Your task to perform on an android device: turn on airplane mode Image 0: 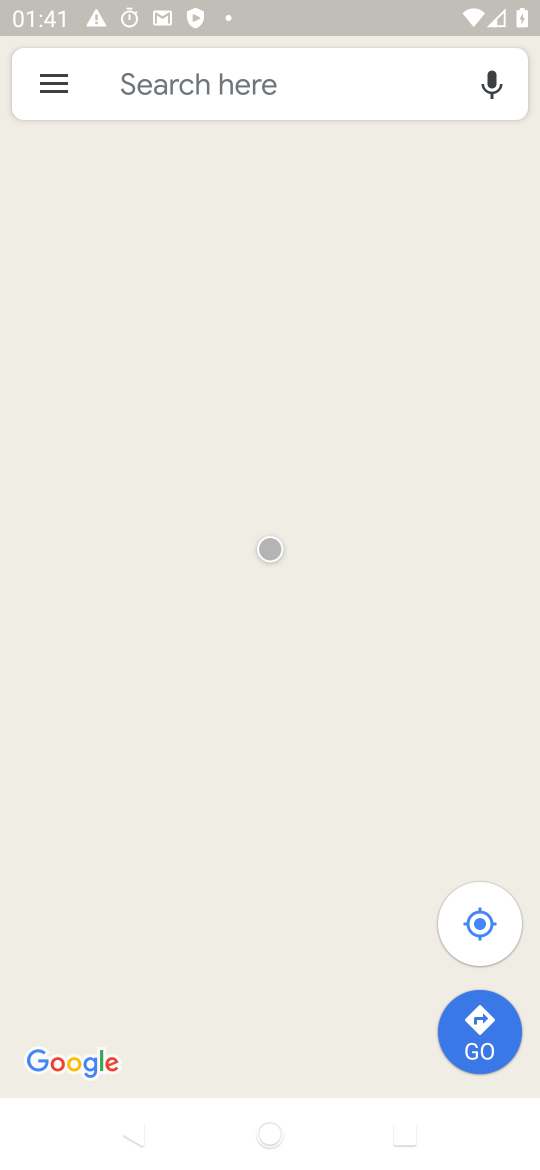
Step 0: press home button
Your task to perform on an android device: turn on airplane mode Image 1: 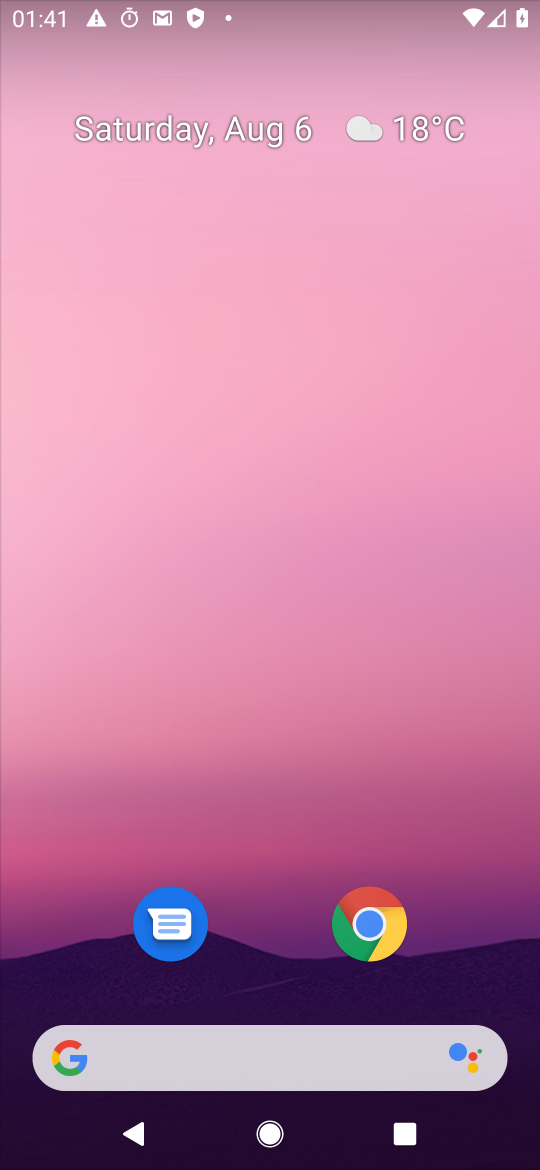
Step 1: drag from (38, 1000) to (294, 81)
Your task to perform on an android device: turn on airplane mode Image 2: 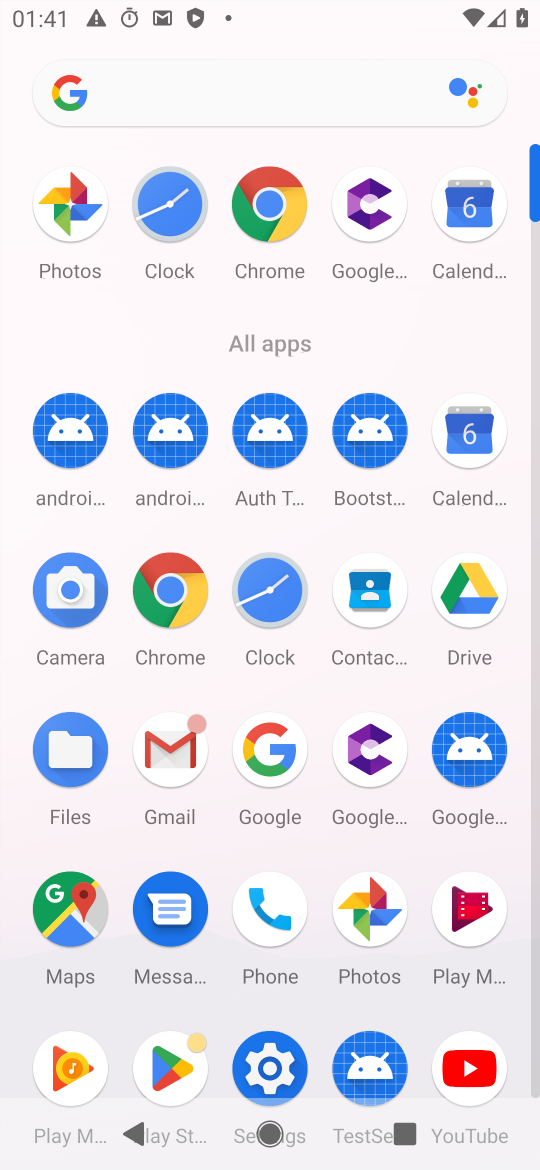
Step 2: click (273, 1067)
Your task to perform on an android device: turn on airplane mode Image 3: 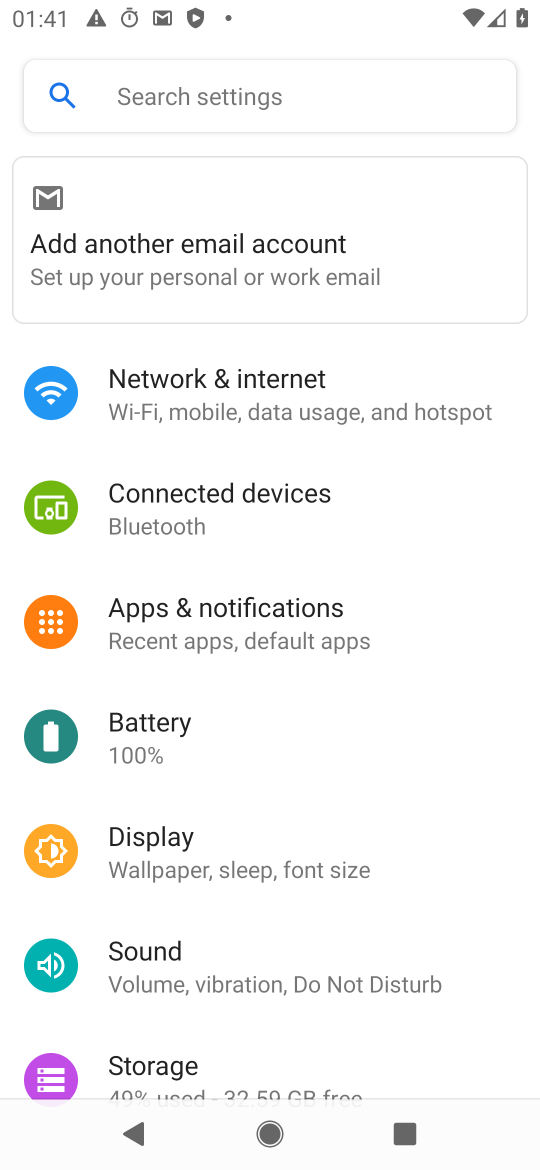
Step 3: click (375, 389)
Your task to perform on an android device: turn on airplane mode Image 4: 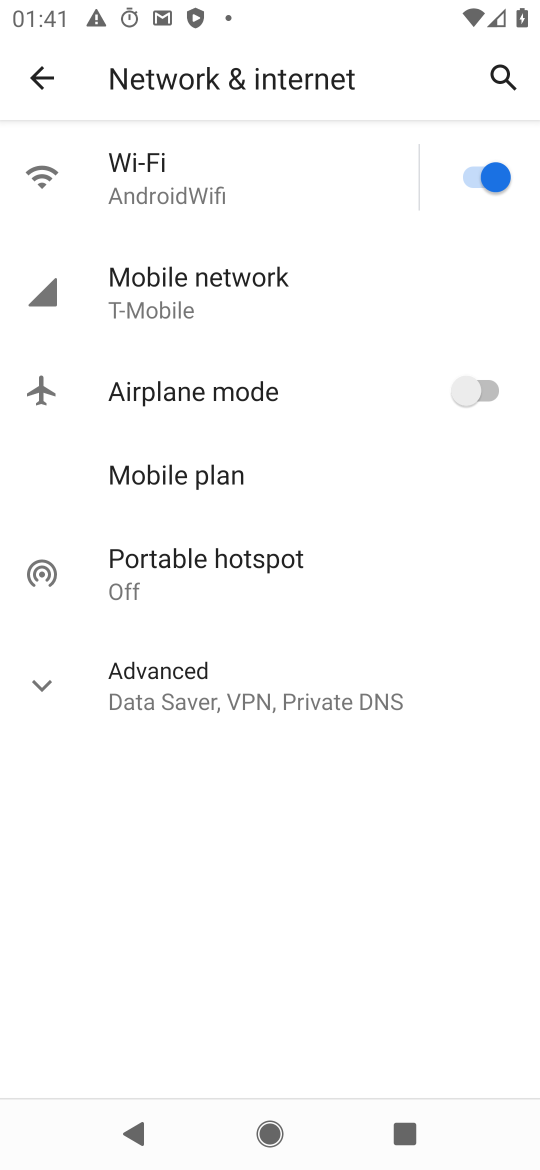
Step 4: click (483, 376)
Your task to perform on an android device: turn on airplane mode Image 5: 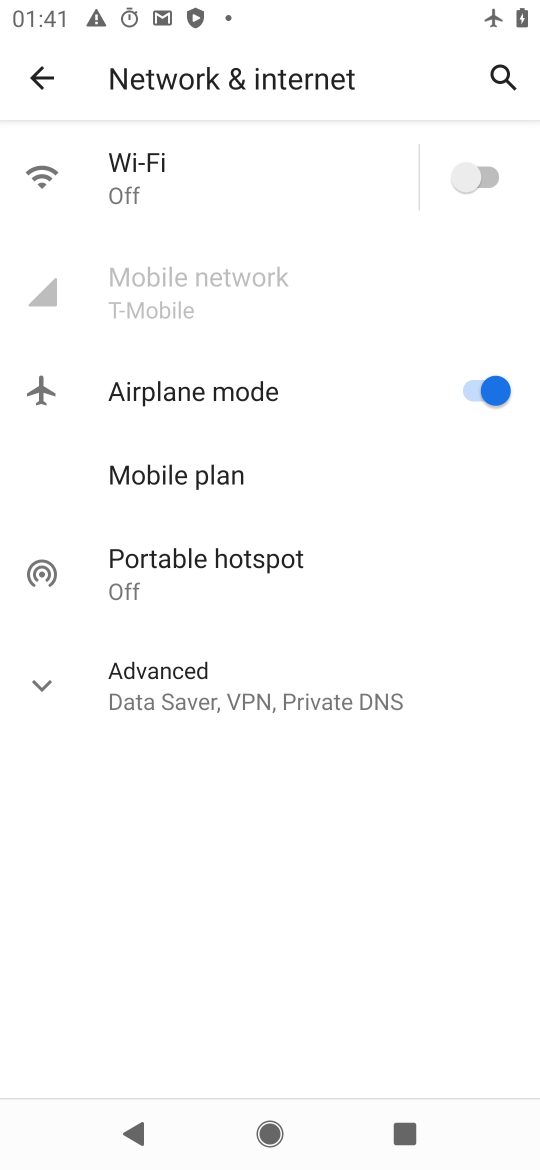
Step 5: task complete